Your task to perform on an android device: What's the weather? Image 0: 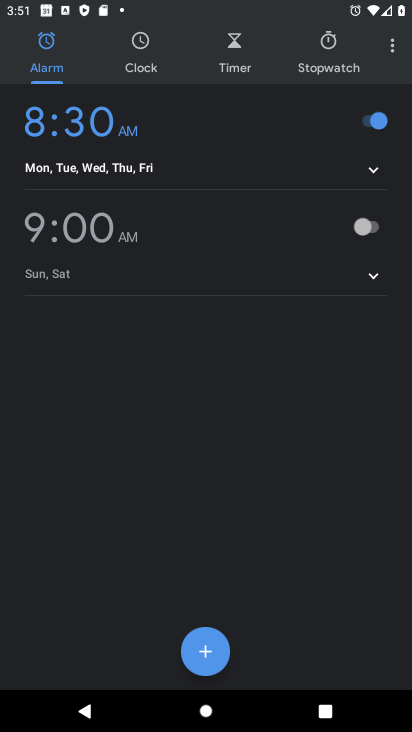
Step 0: press home button
Your task to perform on an android device: What's the weather? Image 1: 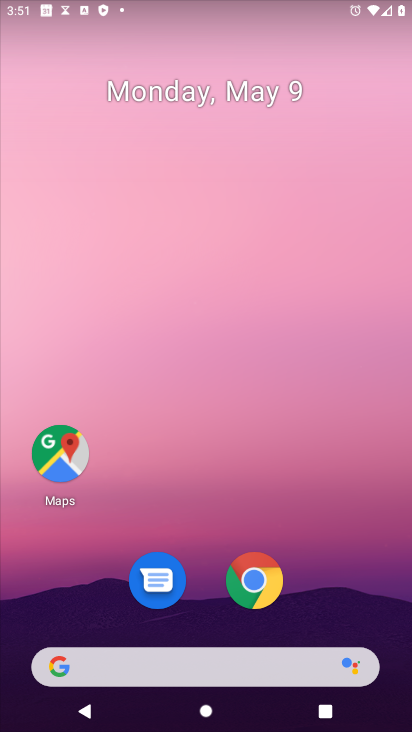
Step 1: drag from (324, 560) to (233, 50)
Your task to perform on an android device: What's the weather? Image 2: 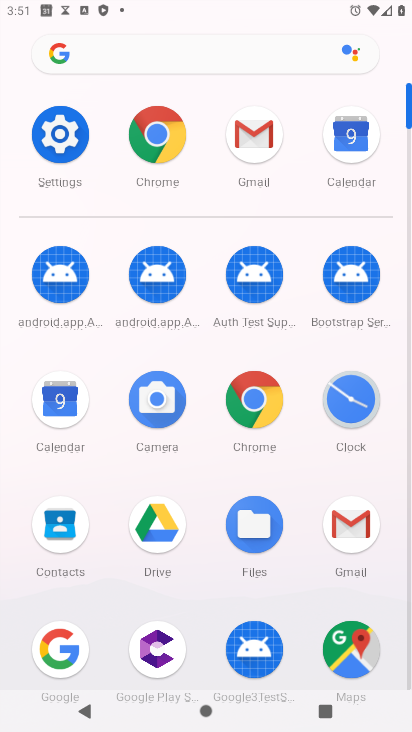
Step 2: click (67, 140)
Your task to perform on an android device: What's the weather? Image 3: 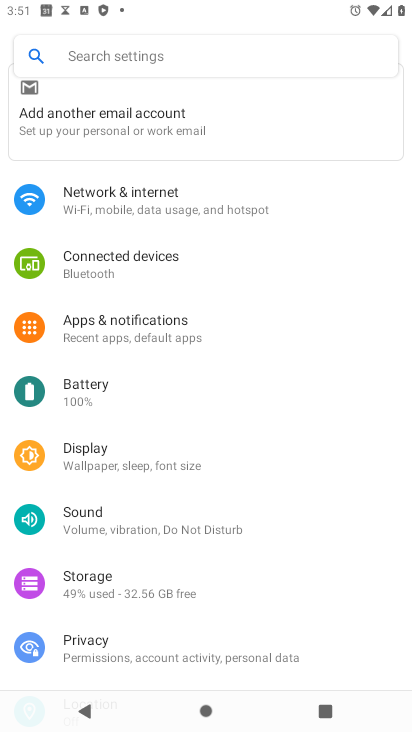
Step 3: drag from (243, 588) to (209, 176)
Your task to perform on an android device: What's the weather? Image 4: 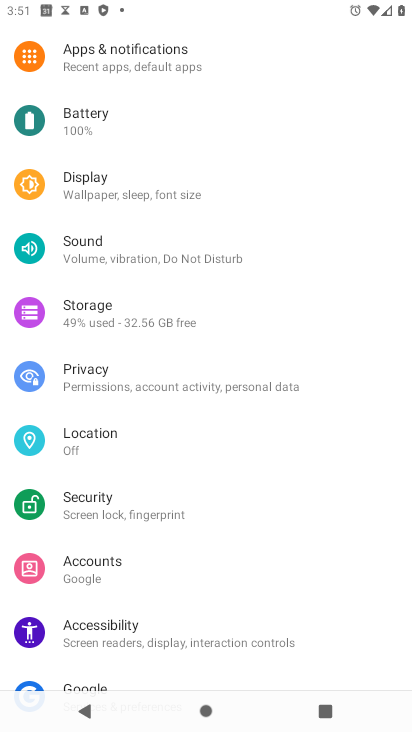
Step 4: press home button
Your task to perform on an android device: What's the weather? Image 5: 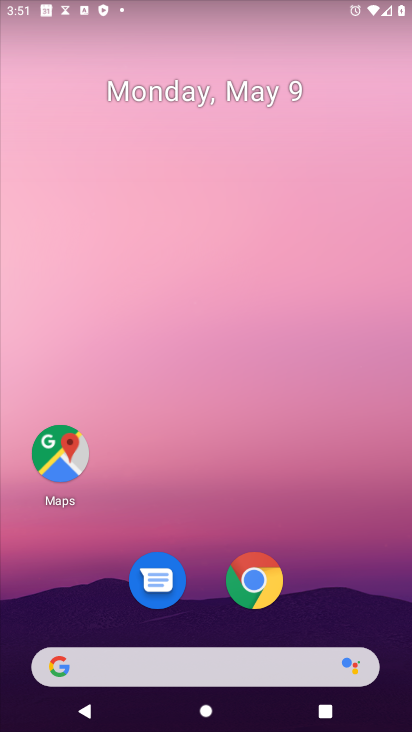
Step 5: drag from (317, 486) to (225, 58)
Your task to perform on an android device: What's the weather? Image 6: 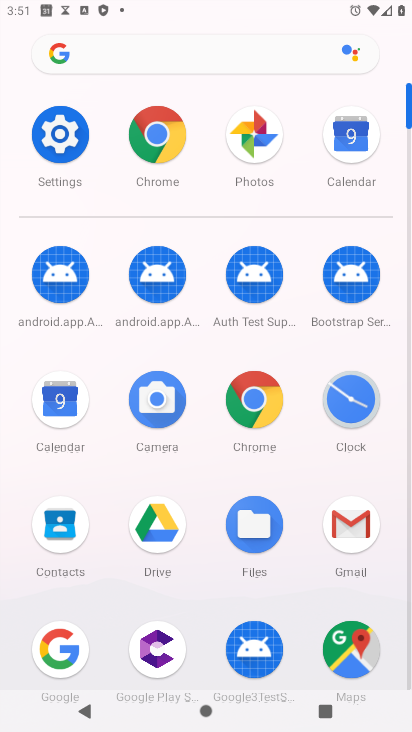
Step 6: click (62, 655)
Your task to perform on an android device: What's the weather? Image 7: 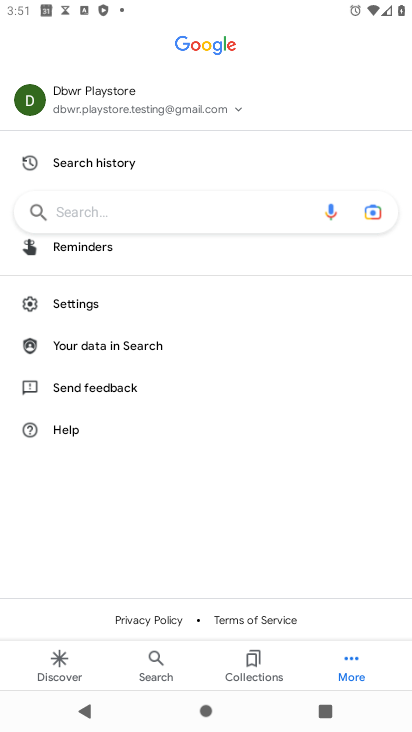
Step 7: click (64, 676)
Your task to perform on an android device: What's the weather? Image 8: 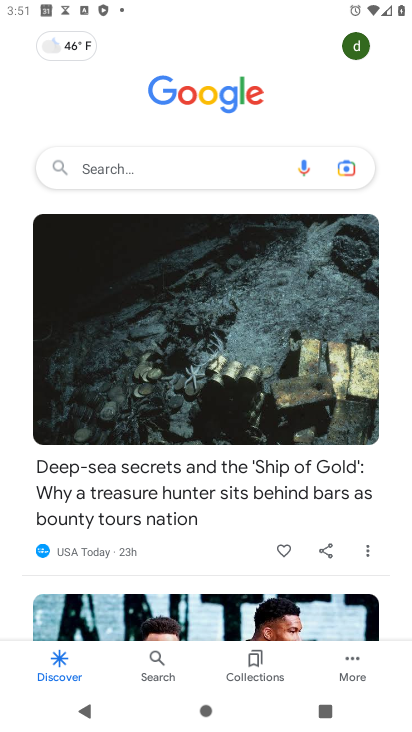
Step 8: click (72, 42)
Your task to perform on an android device: What's the weather? Image 9: 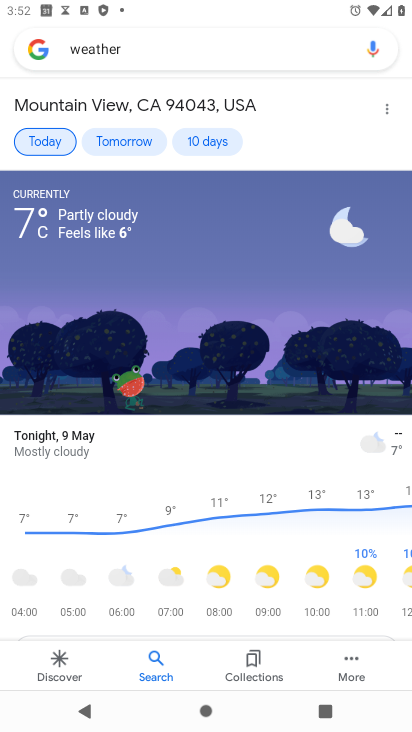
Step 9: task complete